Your task to perform on an android device: turn smart compose on in the gmail app Image 0: 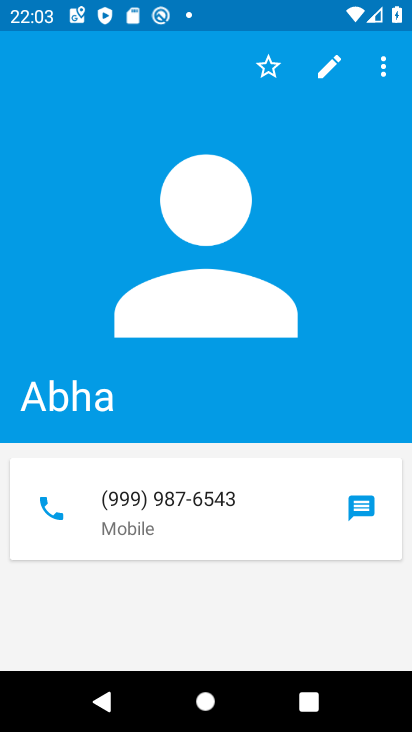
Step 0: press home button
Your task to perform on an android device: turn smart compose on in the gmail app Image 1: 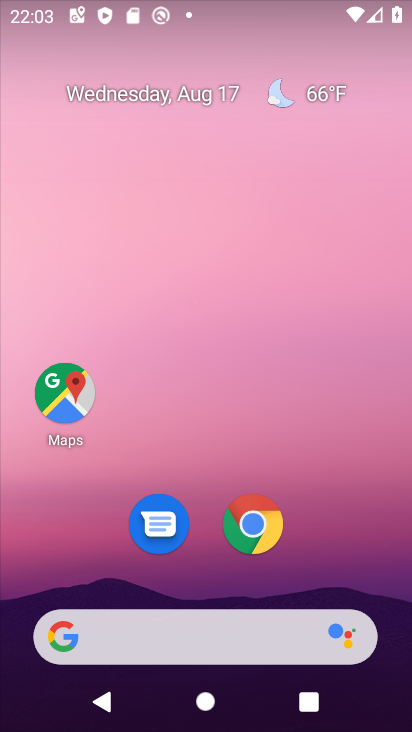
Step 1: drag from (329, 536) to (299, 0)
Your task to perform on an android device: turn smart compose on in the gmail app Image 2: 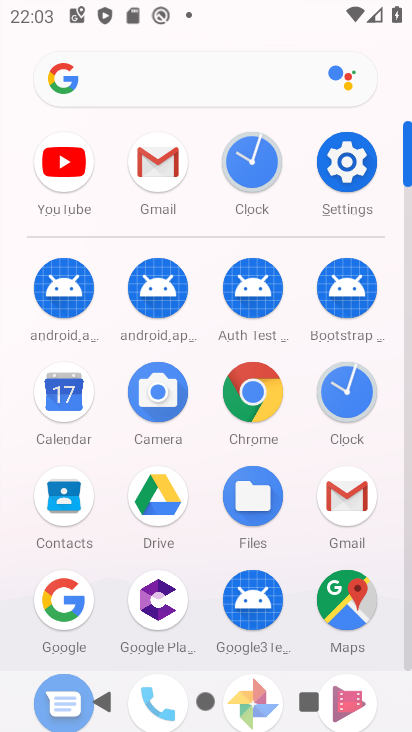
Step 2: click (156, 168)
Your task to perform on an android device: turn smart compose on in the gmail app Image 3: 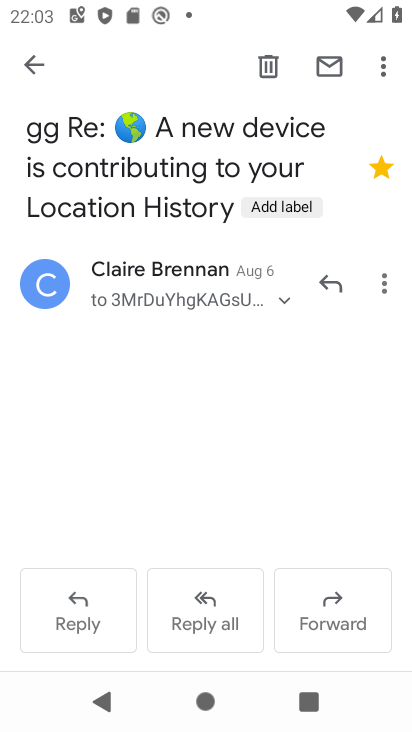
Step 3: click (39, 61)
Your task to perform on an android device: turn smart compose on in the gmail app Image 4: 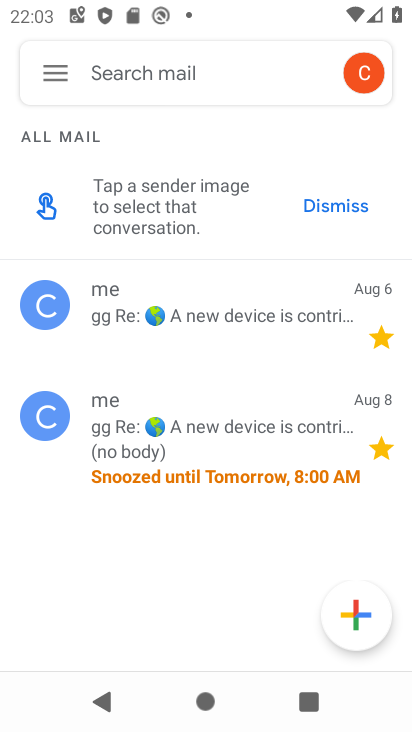
Step 4: click (51, 74)
Your task to perform on an android device: turn smart compose on in the gmail app Image 5: 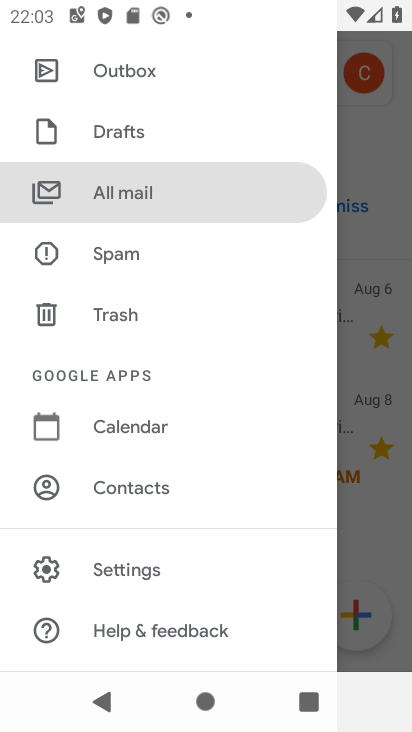
Step 5: click (136, 562)
Your task to perform on an android device: turn smart compose on in the gmail app Image 6: 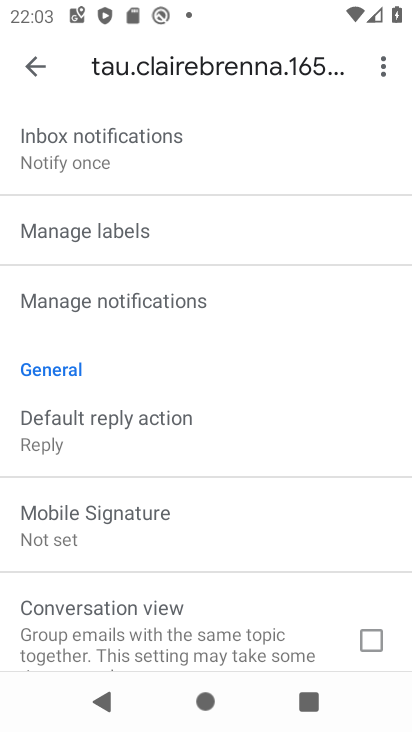
Step 6: task complete